Your task to perform on an android device: Go to Maps Image 0: 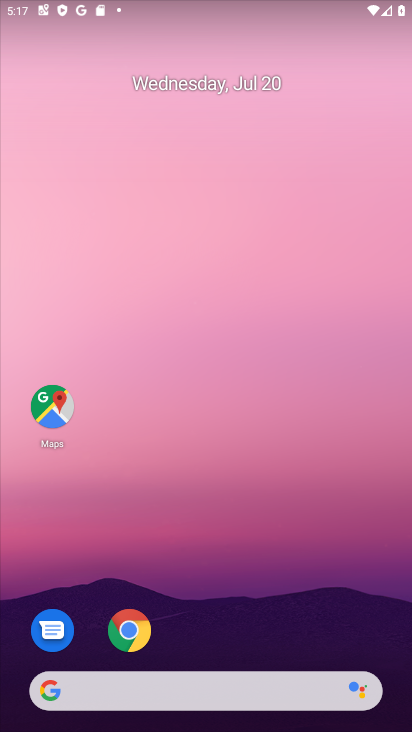
Step 0: click (51, 407)
Your task to perform on an android device: Go to Maps Image 1: 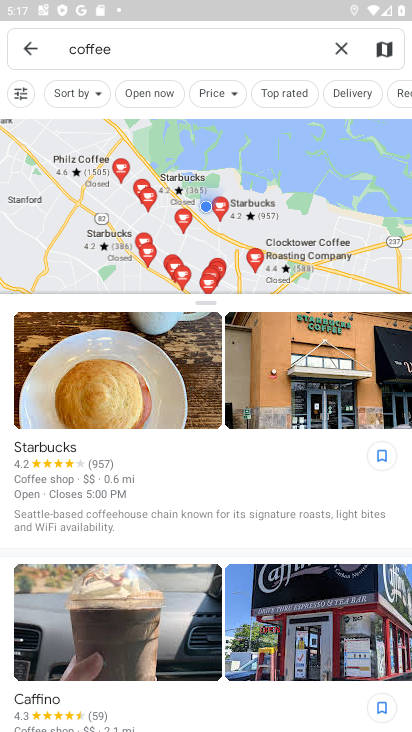
Step 1: task complete